Your task to perform on an android device: Go to internet settings Image 0: 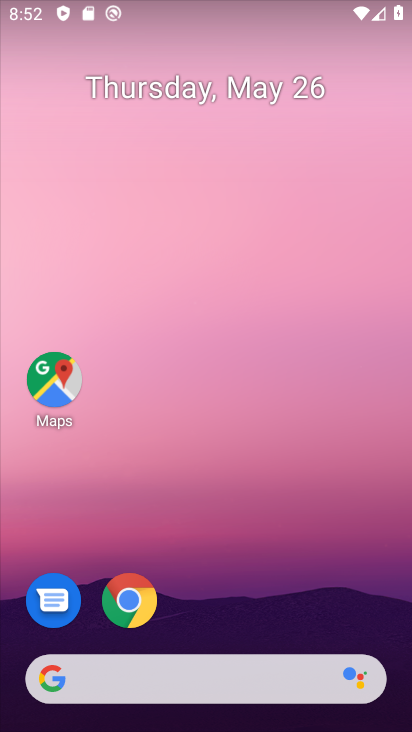
Step 0: drag from (177, 611) to (257, 102)
Your task to perform on an android device: Go to internet settings Image 1: 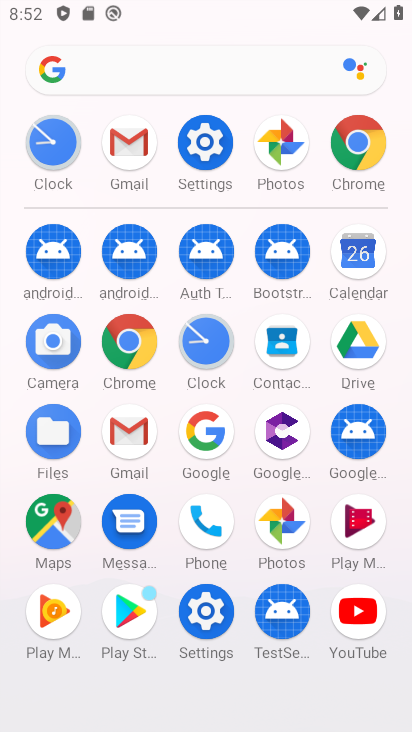
Step 1: click (197, 138)
Your task to perform on an android device: Go to internet settings Image 2: 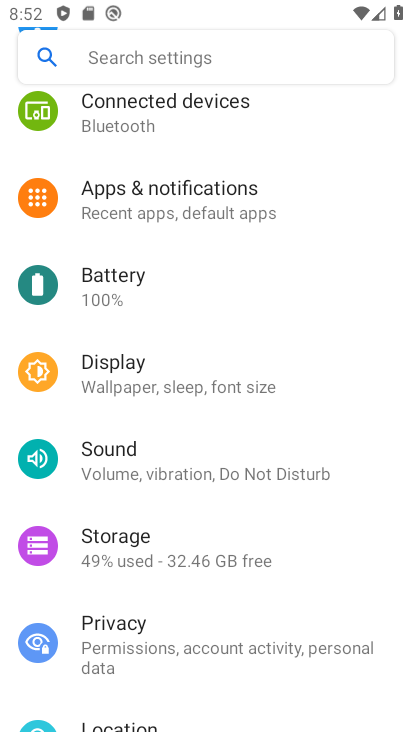
Step 2: drag from (197, 138) to (238, 579)
Your task to perform on an android device: Go to internet settings Image 3: 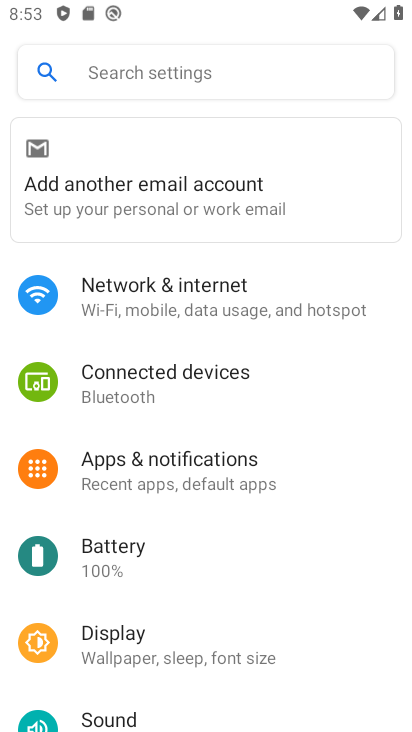
Step 3: click (247, 294)
Your task to perform on an android device: Go to internet settings Image 4: 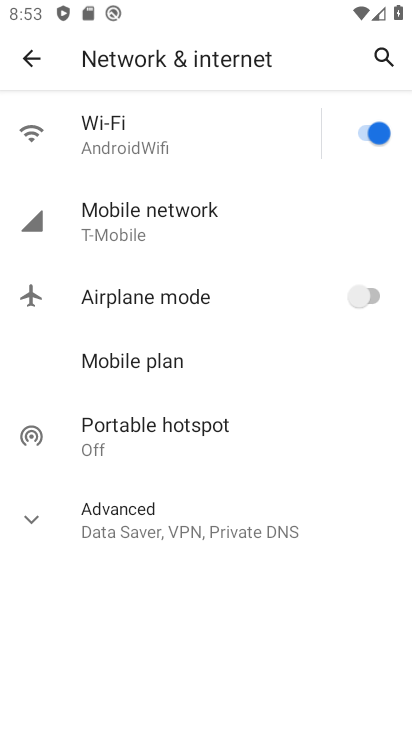
Step 4: click (187, 232)
Your task to perform on an android device: Go to internet settings Image 5: 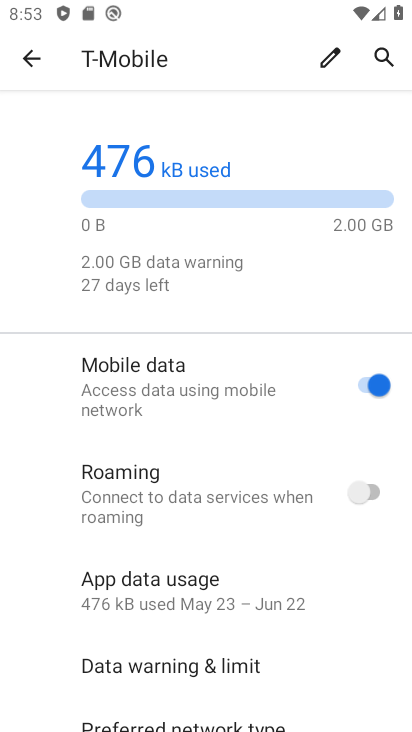
Step 5: task complete